Your task to perform on an android device: Show me popular games on the Play Store Image 0: 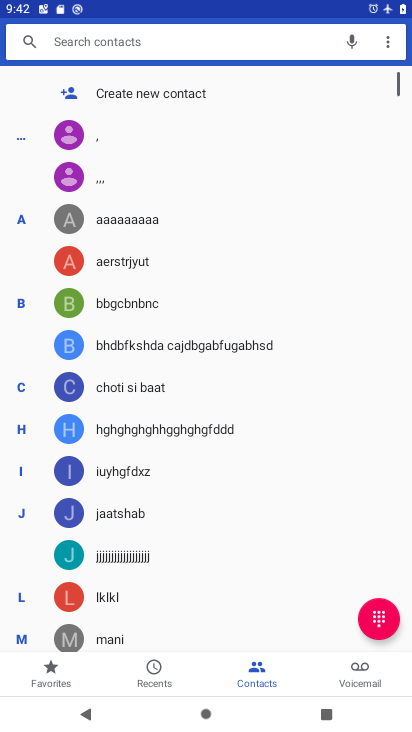
Step 0: press home button
Your task to perform on an android device: Show me popular games on the Play Store Image 1: 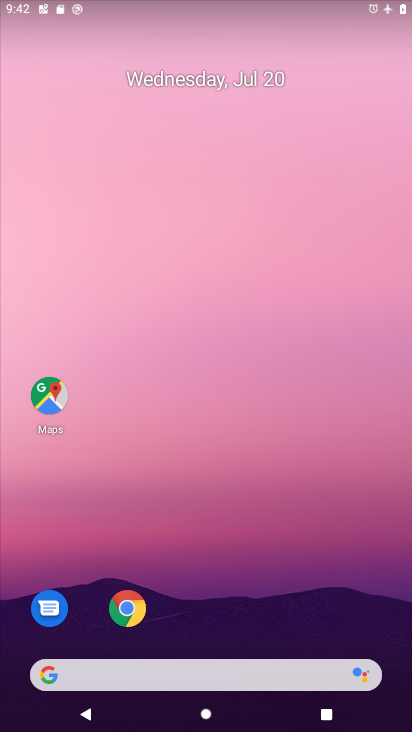
Step 1: drag from (311, 584) to (242, 187)
Your task to perform on an android device: Show me popular games on the Play Store Image 2: 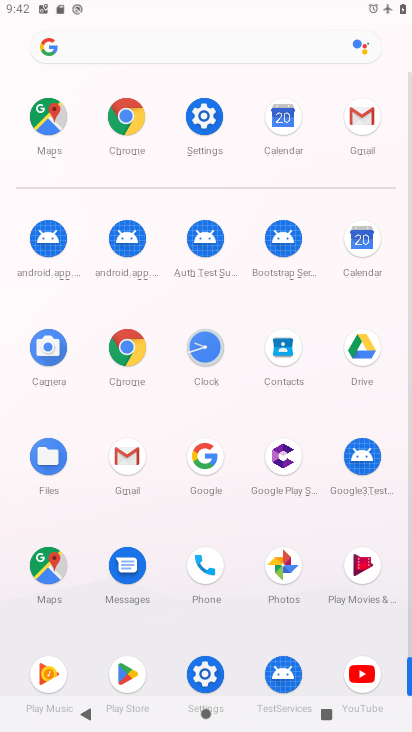
Step 2: click (110, 670)
Your task to perform on an android device: Show me popular games on the Play Store Image 3: 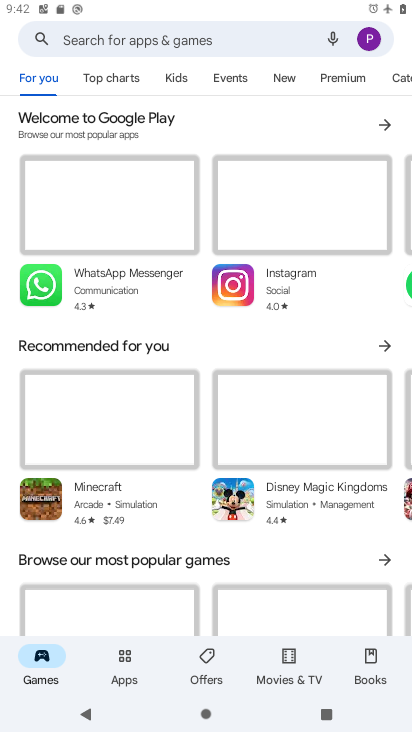
Step 3: click (136, 673)
Your task to perform on an android device: Show me popular games on the Play Store Image 4: 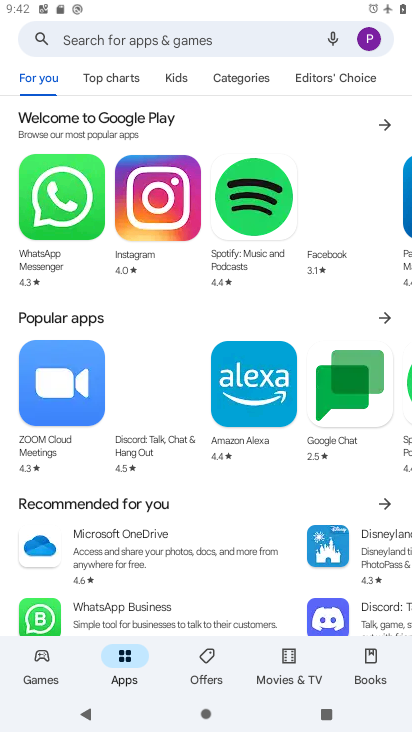
Step 4: click (48, 672)
Your task to perform on an android device: Show me popular games on the Play Store Image 5: 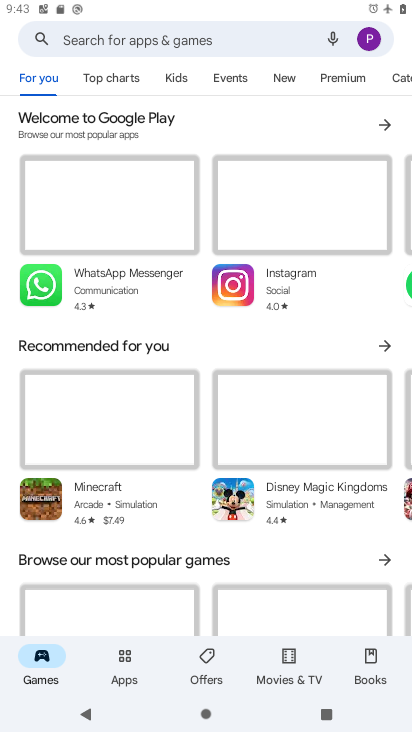
Step 5: task complete